Your task to perform on an android device: Open my contact list Image 0: 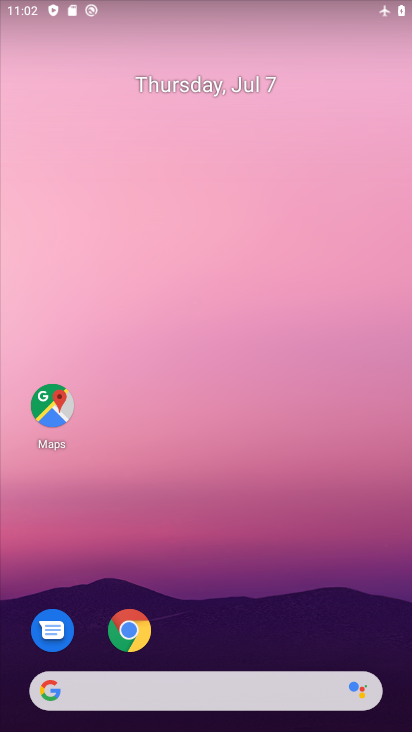
Step 0: drag from (357, 629) to (326, 85)
Your task to perform on an android device: Open my contact list Image 1: 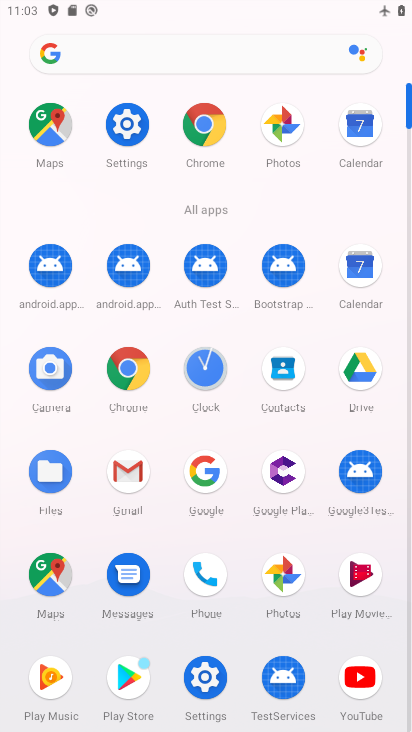
Step 1: click (282, 368)
Your task to perform on an android device: Open my contact list Image 2: 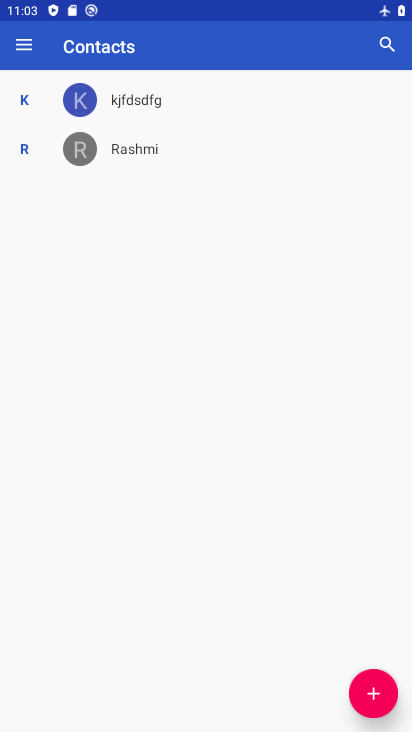
Step 2: task complete